Your task to perform on an android device: turn off location Image 0: 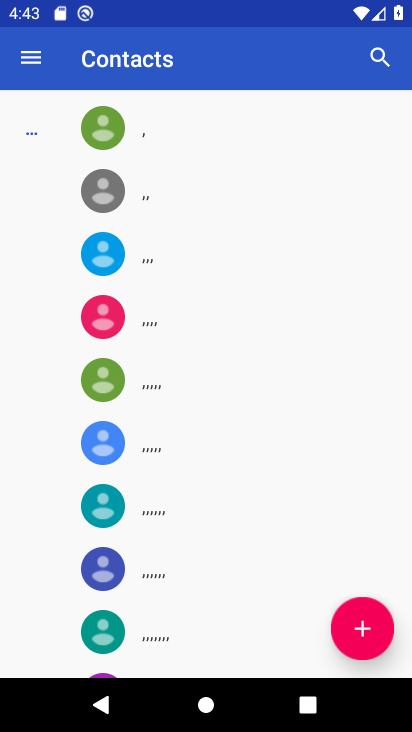
Step 0: press back button
Your task to perform on an android device: turn off location Image 1: 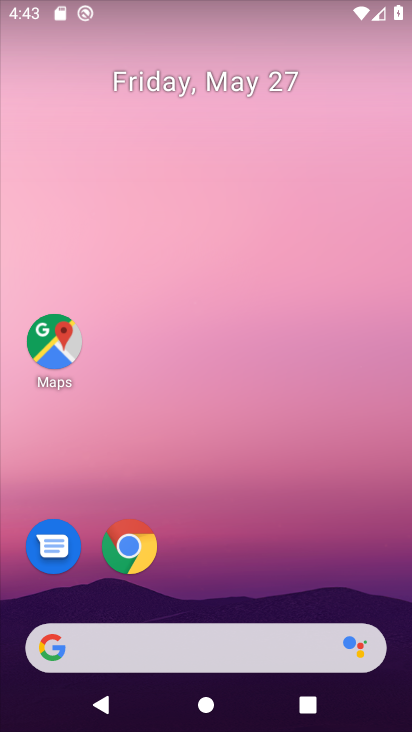
Step 1: drag from (276, 544) to (247, 41)
Your task to perform on an android device: turn off location Image 2: 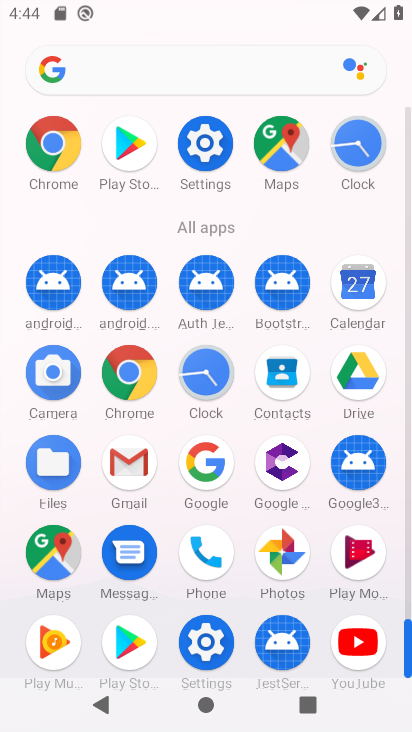
Step 2: drag from (10, 570) to (17, 329)
Your task to perform on an android device: turn off location Image 3: 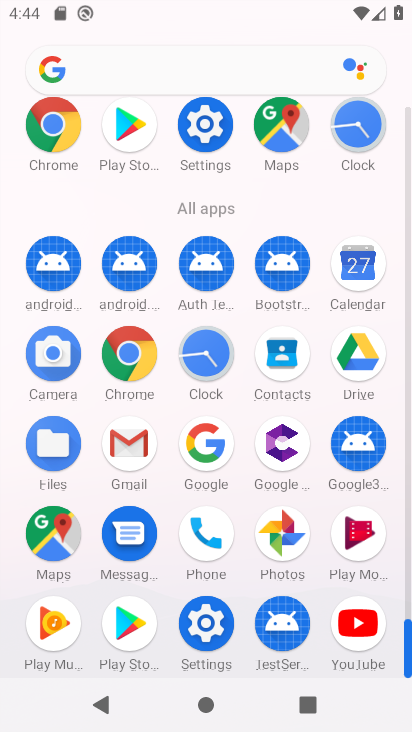
Step 3: click (206, 620)
Your task to perform on an android device: turn off location Image 4: 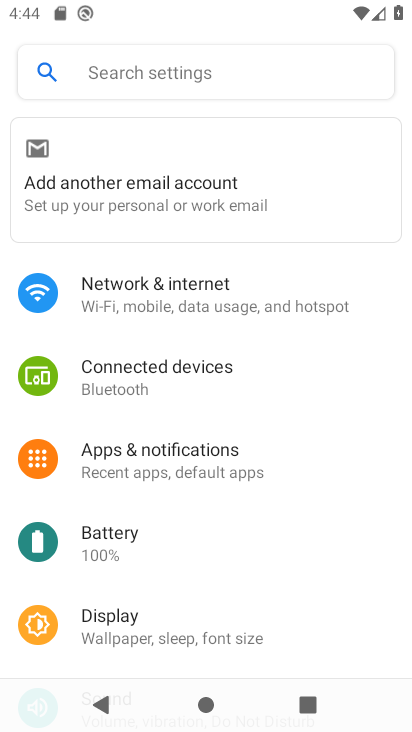
Step 4: drag from (322, 545) to (309, 153)
Your task to perform on an android device: turn off location Image 5: 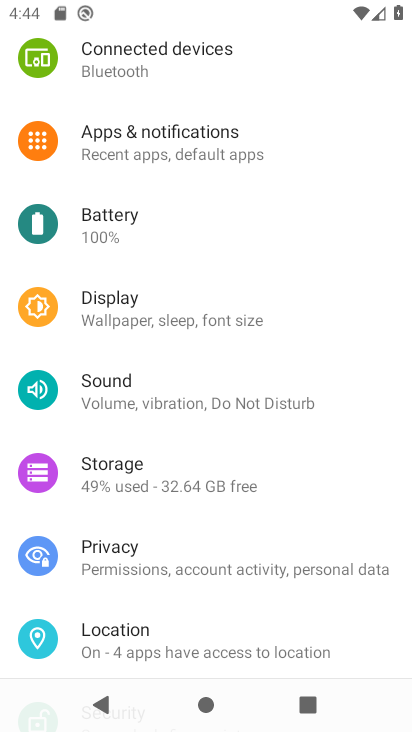
Step 5: click (140, 619)
Your task to perform on an android device: turn off location Image 6: 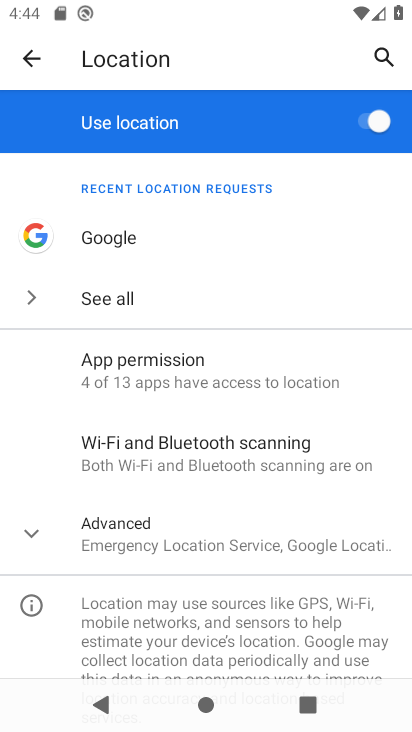
Step 6: click (368, 116)
Your task to perform on an android device: turn off location Image 7: 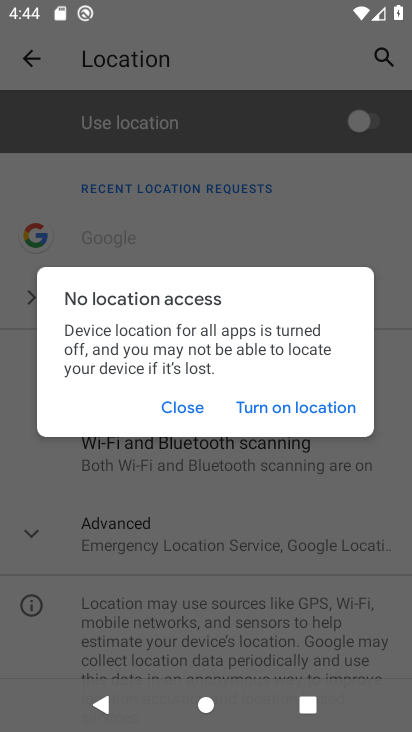
Step 7: click (170, 410)
Your task to perform on an android device: turn off location Image 8: 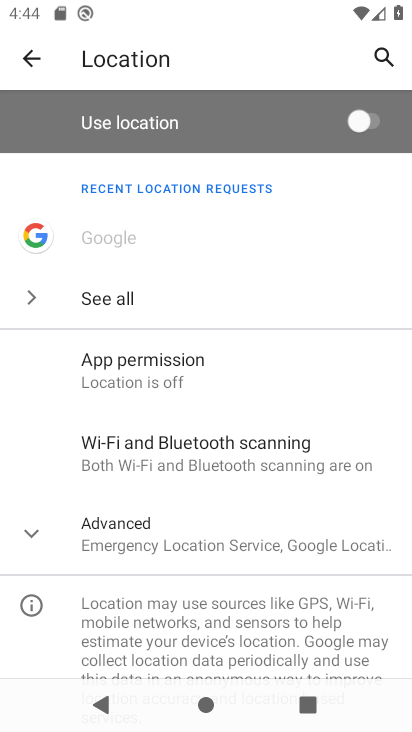
Step 8: task complete